Your task to perform on an android device: Search for vegetarian restaurants on Maps Image 0: 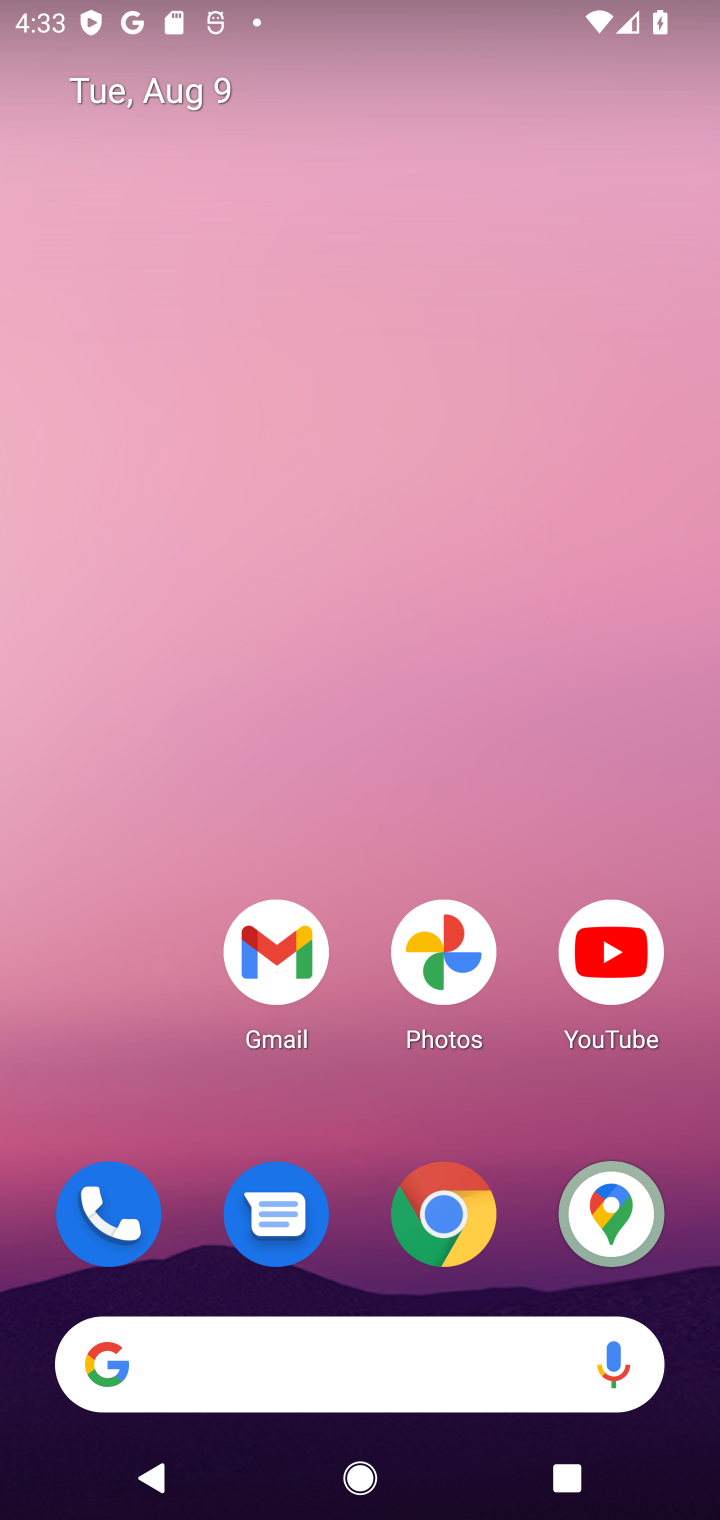
Step 0: press home button
Your task to perform on an android device: Search for vegetarian restaurants on Maps Image 1: 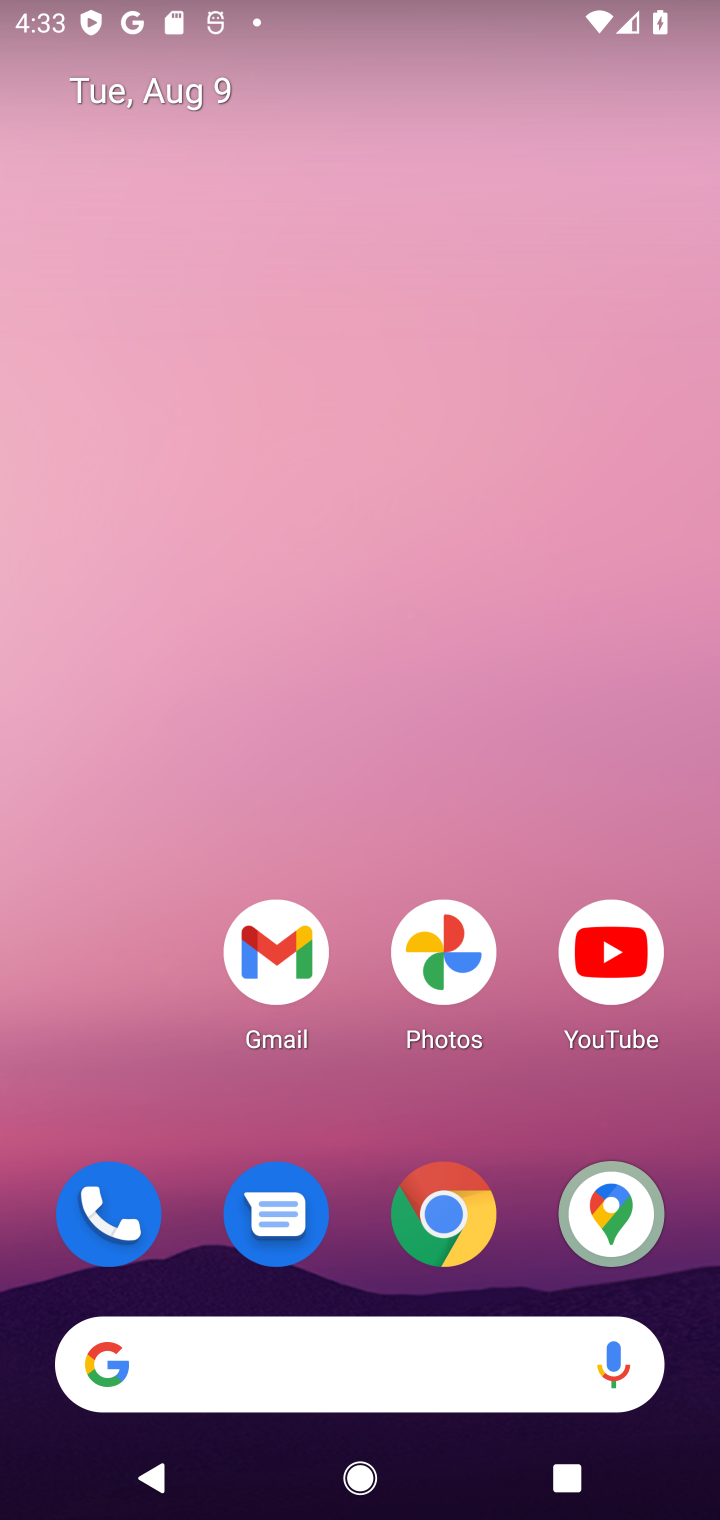
Step 1: drag from (487, 1412) to (543, 328)
Your task to perform on an android device: Search for vegetarian restaurants on Maps Image 2: 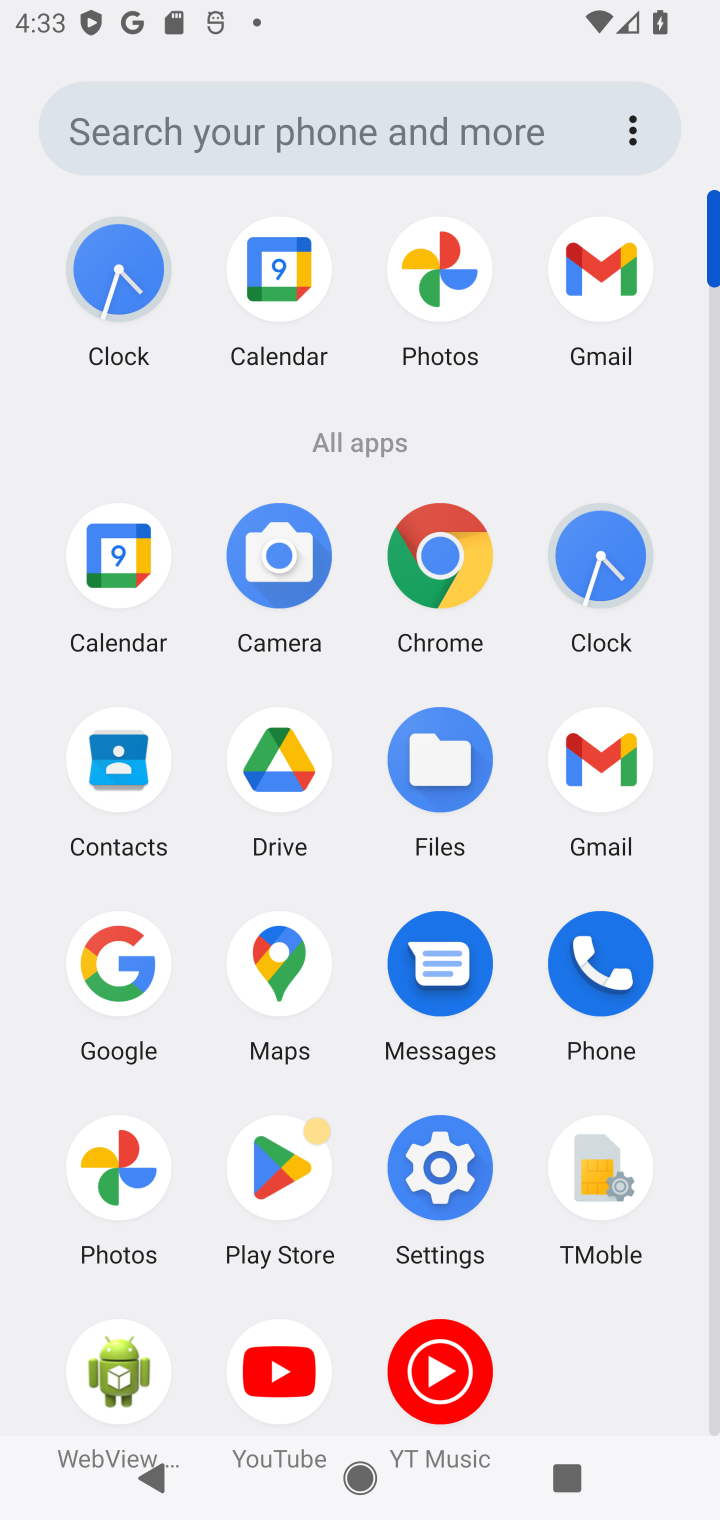
Step 2: click (266, 972)
Your task to perform on an android device: Search for vegetarian restaurants on Maps Image 3: 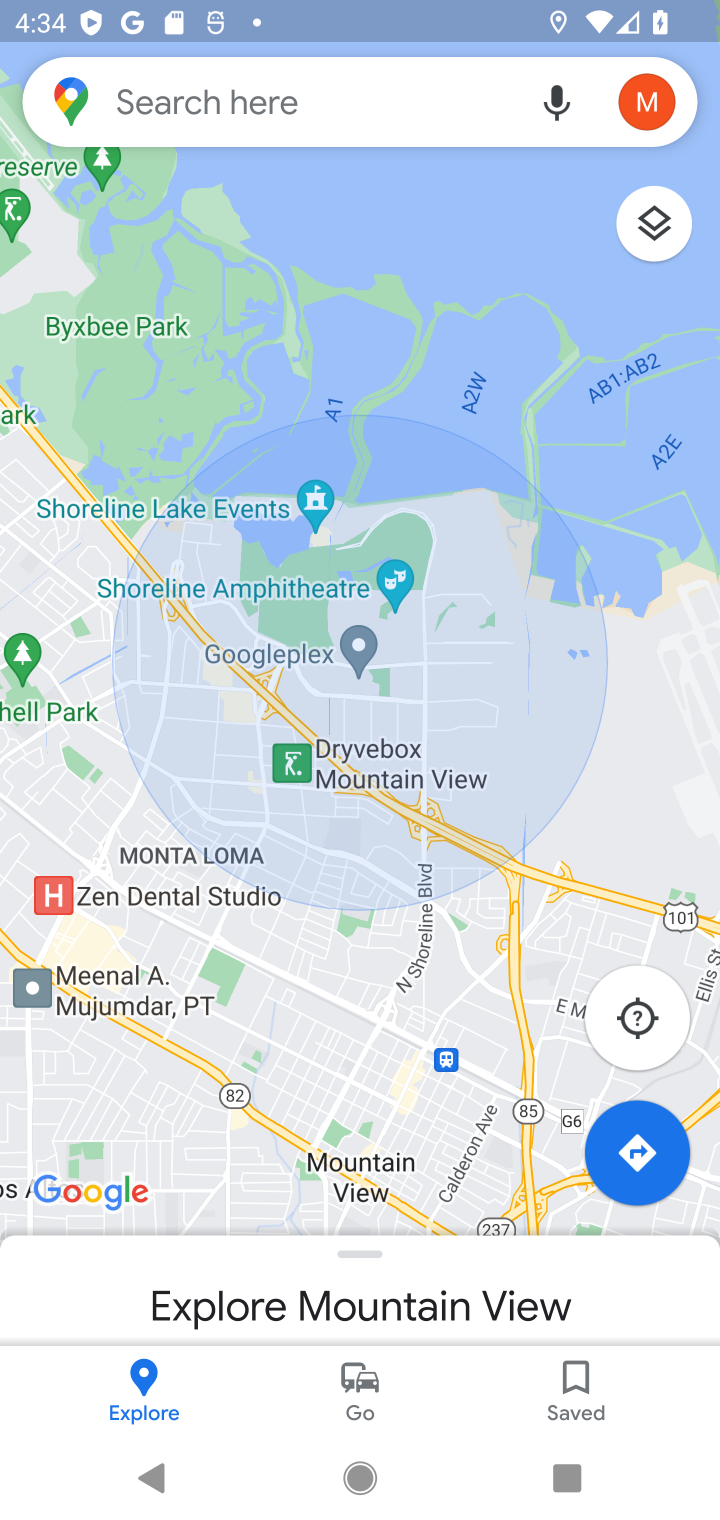
Step 3: click (208, 90)
Your task to perform on an android device: Search for vegetarian restaurants on Maps Image 4: 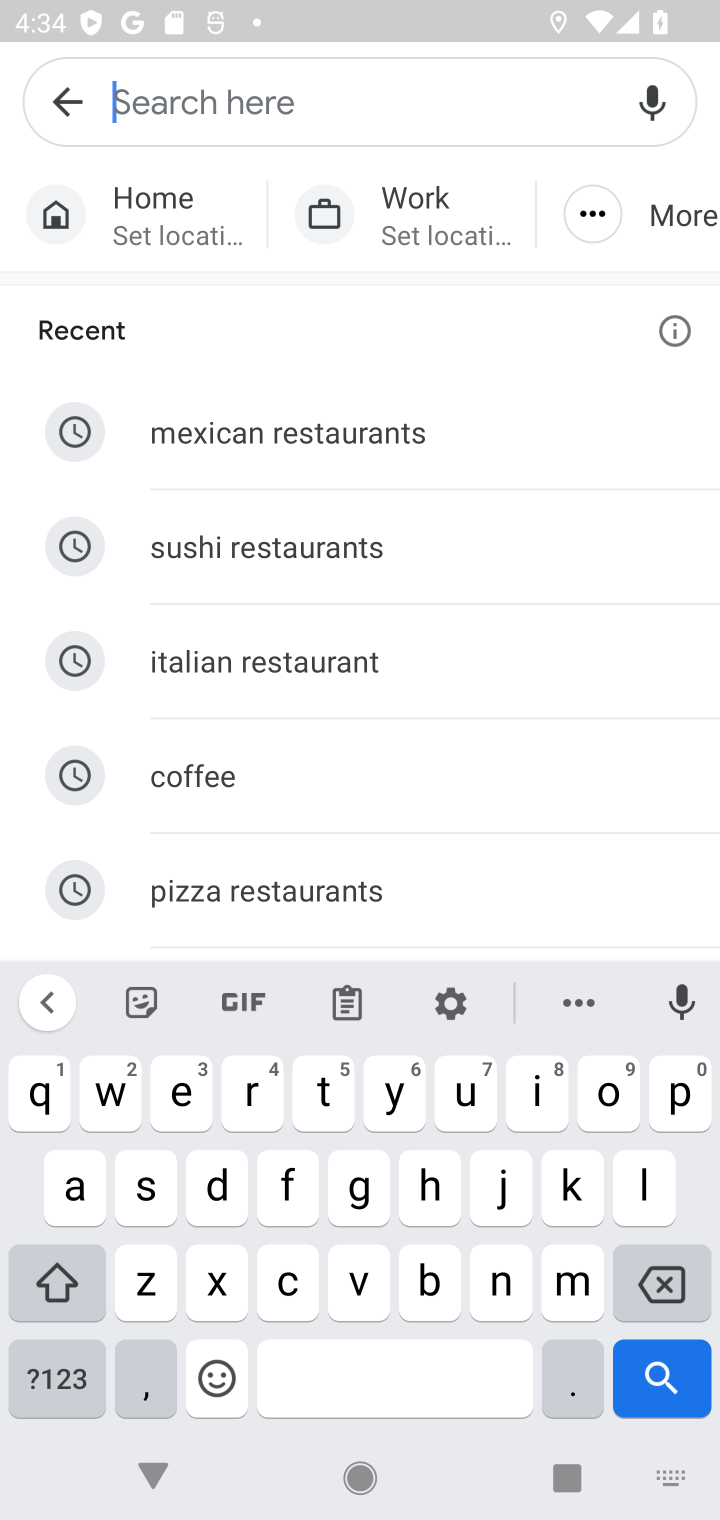
Step 4: click (359, 1295)
Your task to perform on an android device: Search for vegetarian restaurants on Maps Image 5: 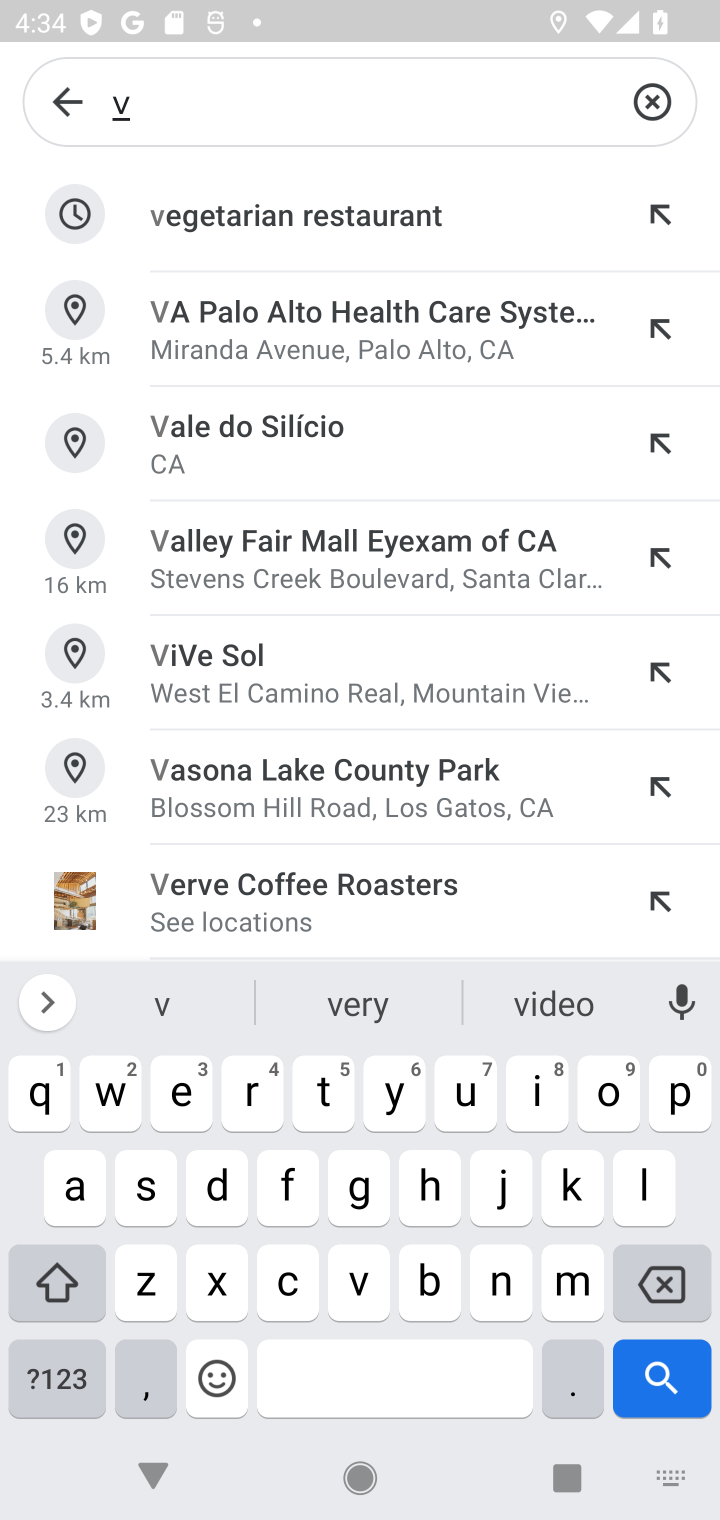
Step 5: click (330, 216)
Your task to perform on an android device: Search for vegetarian restaurants on Maps Image 6: 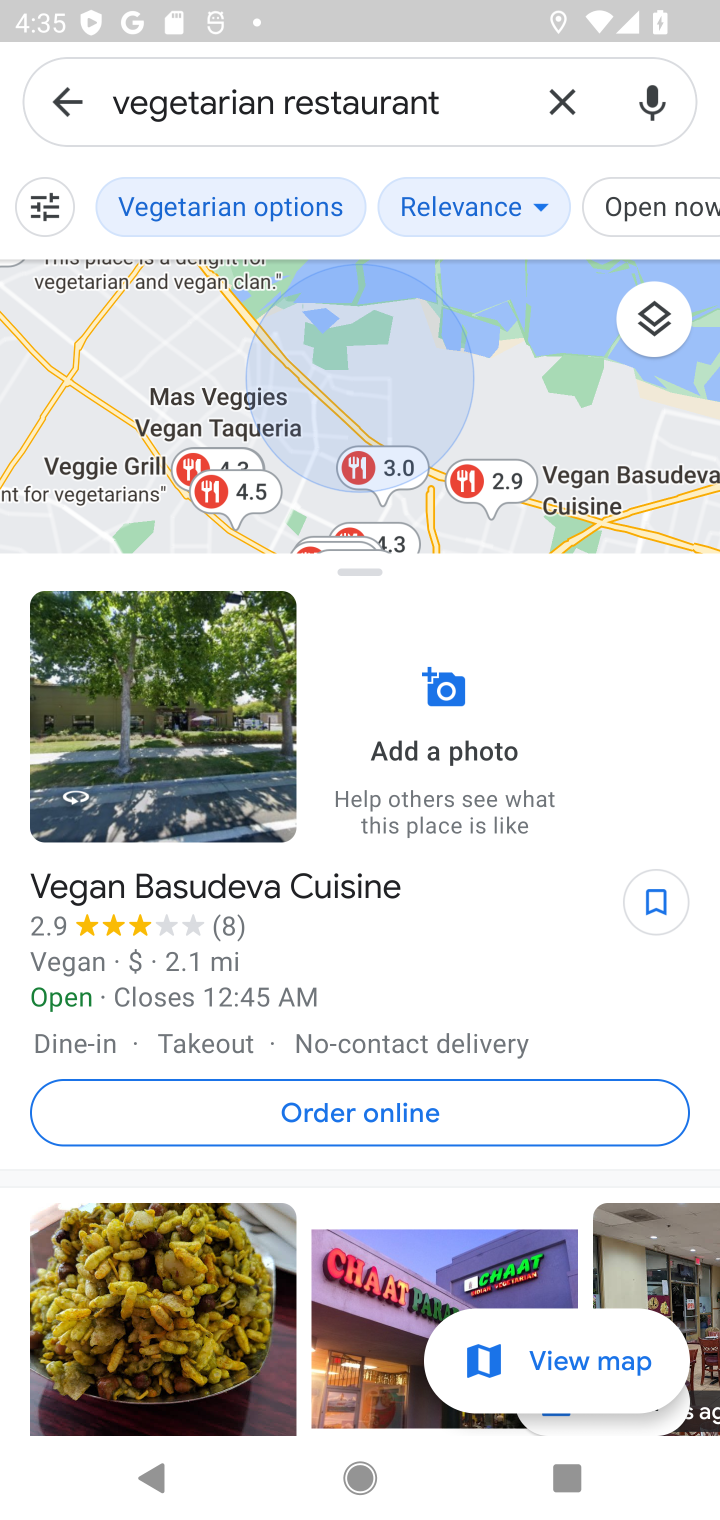
Step 6: task complete